Your task to perform on an android device: change text size in settings app Image 0: 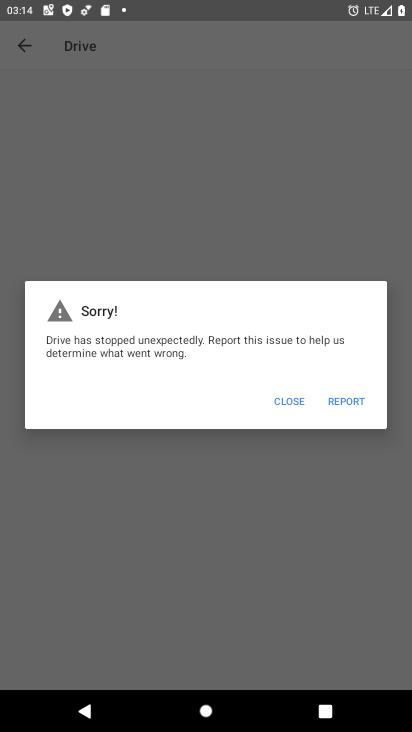
Step 0: press home button
Your task to perform on an android device: change text size in settings app Image 1: 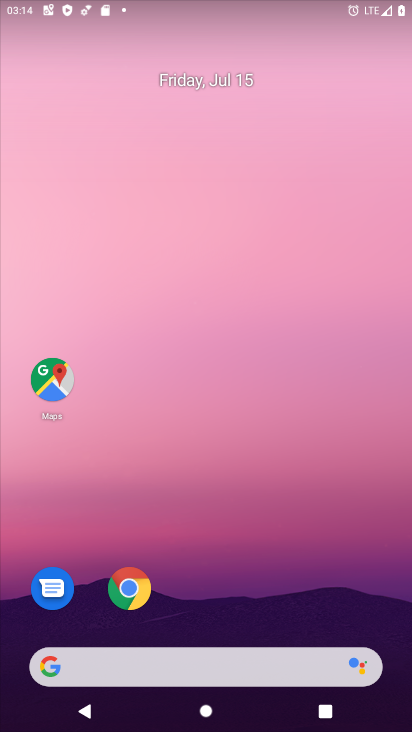
Step 1: drag from (203, 680) to (201, 205)
Your task to perform on an android device: change text size in settings app Image 2: 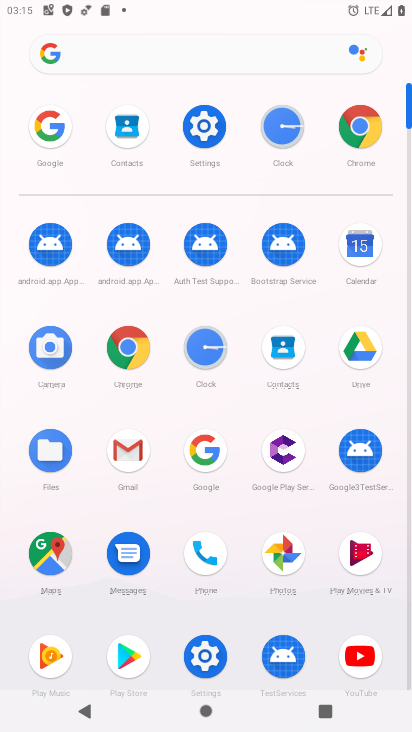
Step 2: click (203, 124)
Your task to perform on an android device: change text size in settings app Image 3: 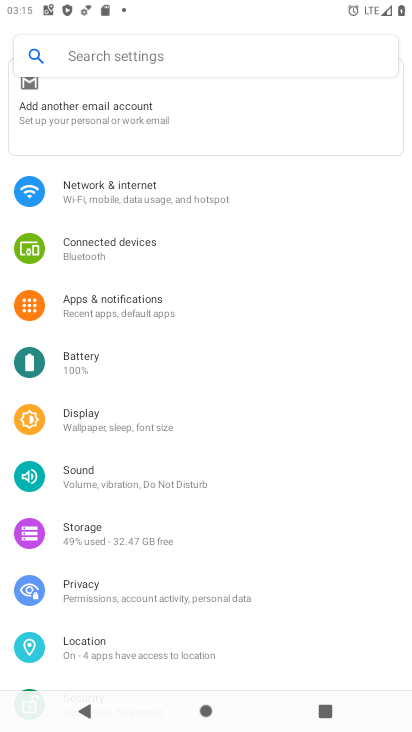
Step 3: drag from (113, 501) to (153, 348)
Your task to perform on an android device: change text size in settings app Image 4: 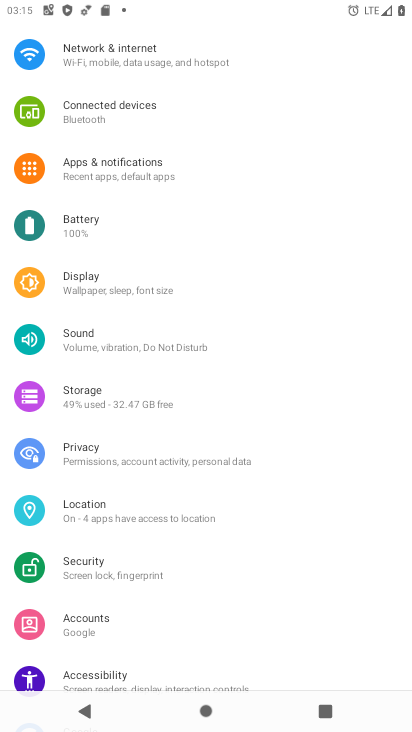
Step 4: drag from (145, 505) to (164, 313)
Your task to perform on an android device: change text size in settings app Image 5: 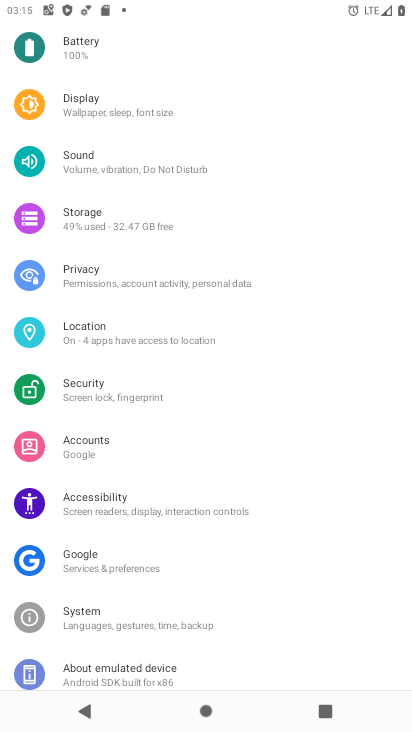
Step 5: click (142, 505)
Your task to perform on an android device: change text size in settings app Image 6: 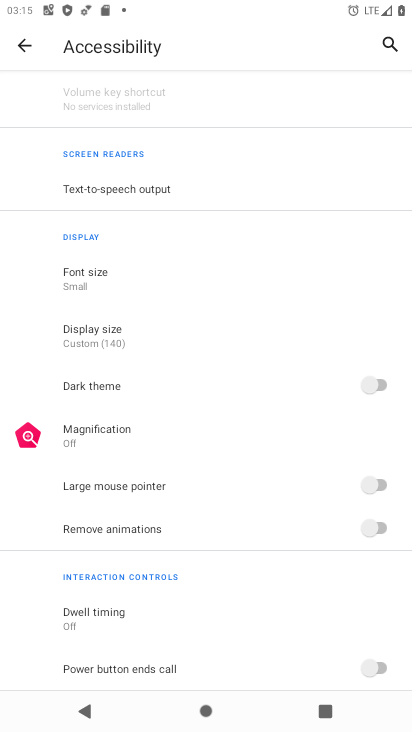
Step 6: drag from (160, 593) to (186, 517)
Your task to perform on an android device: change text size in settings app Image 7: 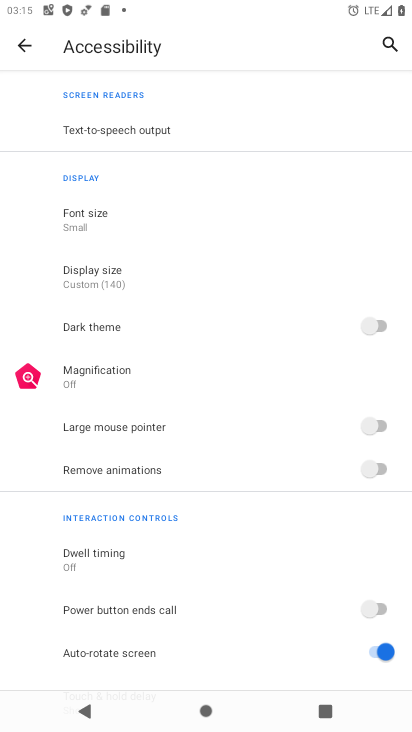
Step 7: click (124, 219)
Your task to perform on an android device: change text size in settings app Image 8: 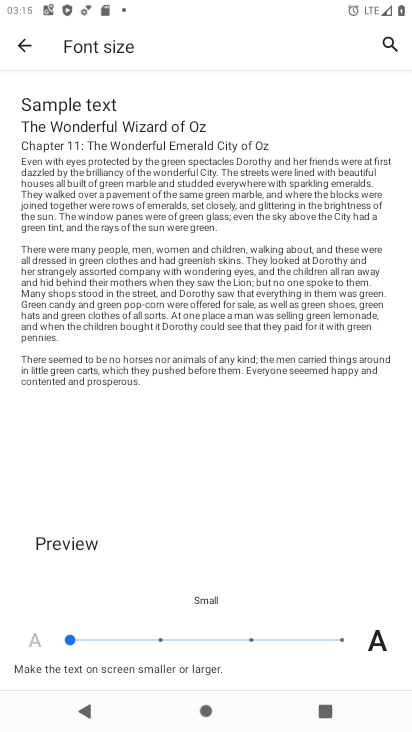
Step 8: click (341, 641)
Your task to perform on an android device: change text size in settings app Image 9: 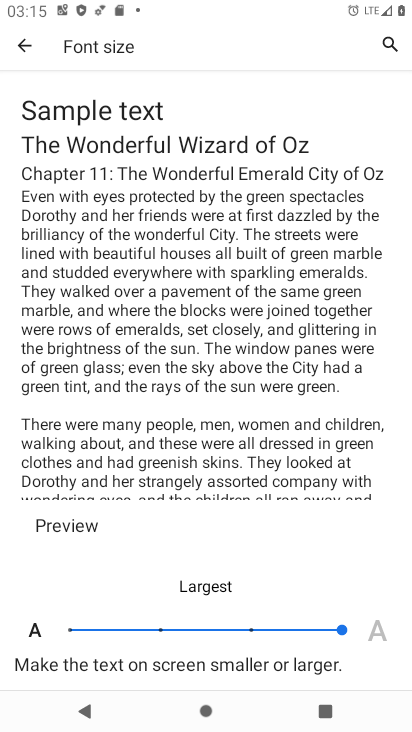
Step 9: task complete